Your task to perform on an android device: turn on the 24-hour format for clock Image 0: 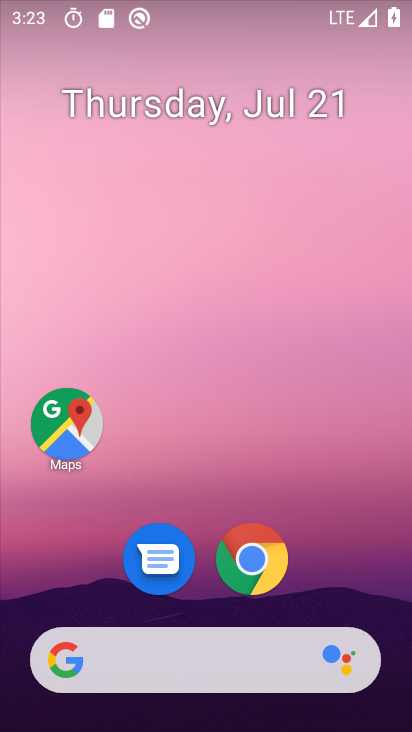
Step 0: drag from (370, 565) to (372, 115)
Your task to perform on an android device: turn on the 24-hour format for clock Image 1: 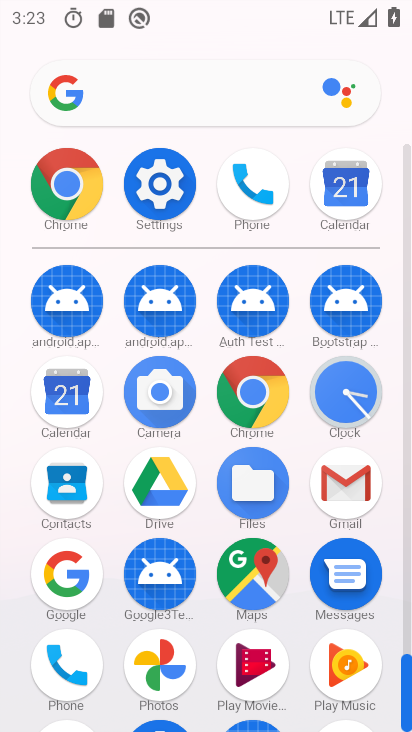
Step 1: click (358, 385)
Your task to perform on an android device: turn on the 24-hour format for clock Image 2: 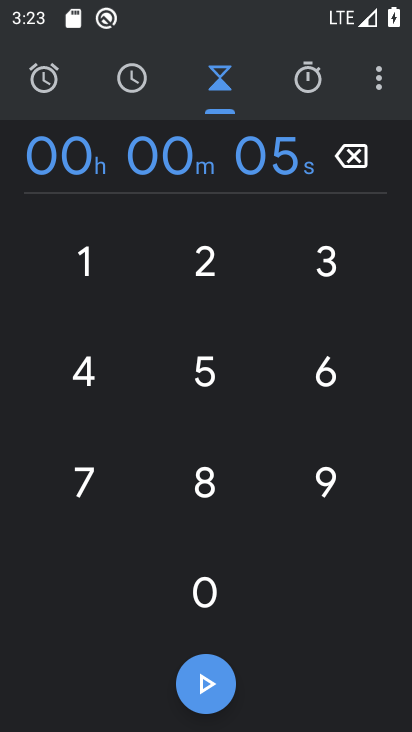
Step 2: click (380, 81)
Your task to perform on an android device: turn on the 24-hour format for clock Image 3: 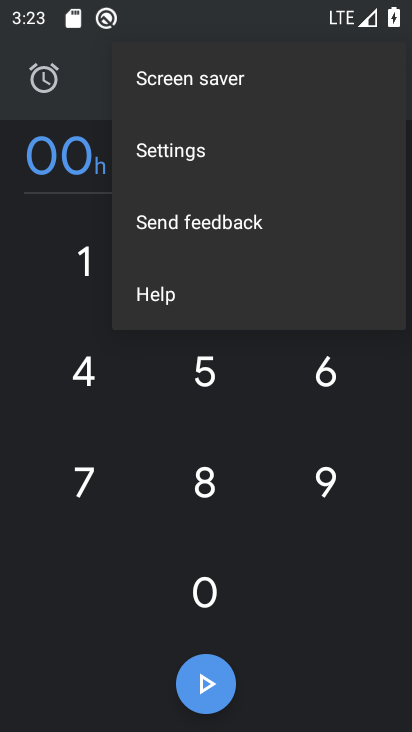
Step 3: click (195, 154)
Your task to perform on an android device: turn on the 24-hour format for clock Image 4: 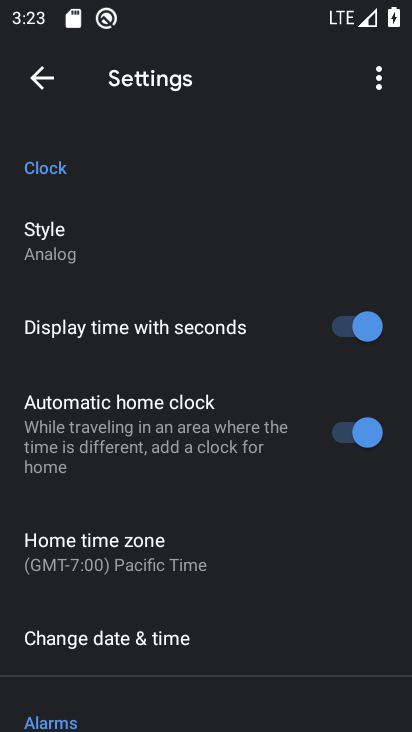
Step 4: drag from (283, 448) to (287, 404)
Your task to perform on an android device: turn on the 24-hour format for clock Image 5: 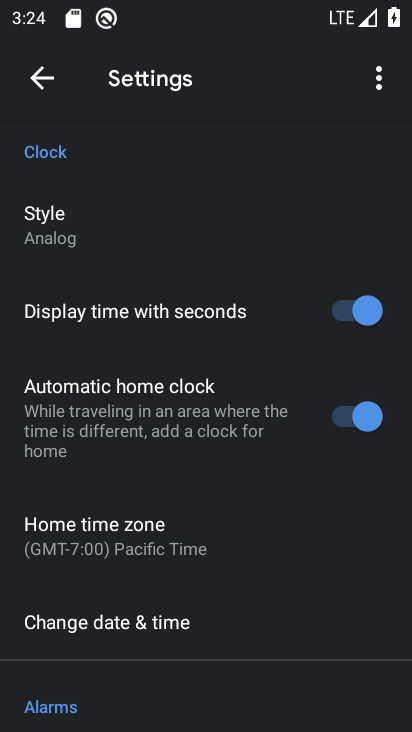
Step 5: drag from (299, 555) to (301, 423)
Your task to perform on an android device: turn on the 24-hour format for clock Image 6: 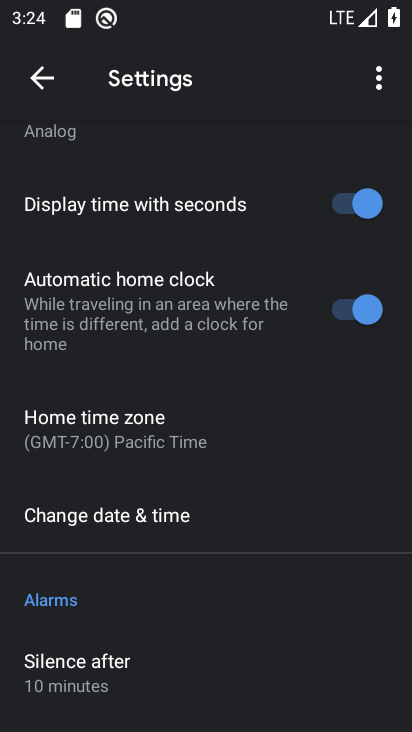
Step 6: drag from (302, 543) to (297, 437)
Your task to perform on an android device: turn on the 24-hour format for clock Image 7: 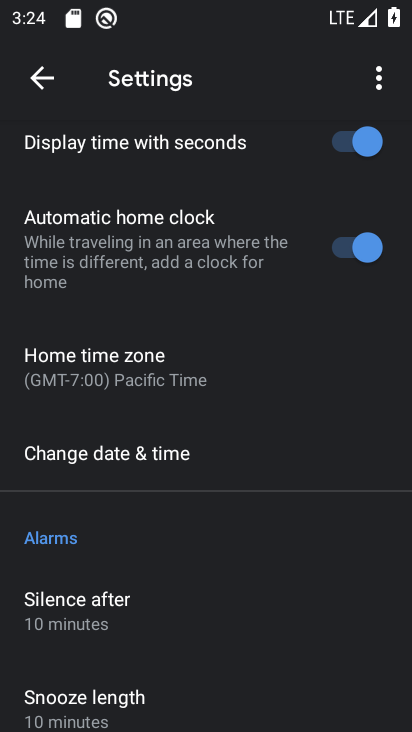
Step 7: drag from (299, 530) to (299, 405)
Your task to perform on an android device: turn on the 24-hour format for clock Image 8: 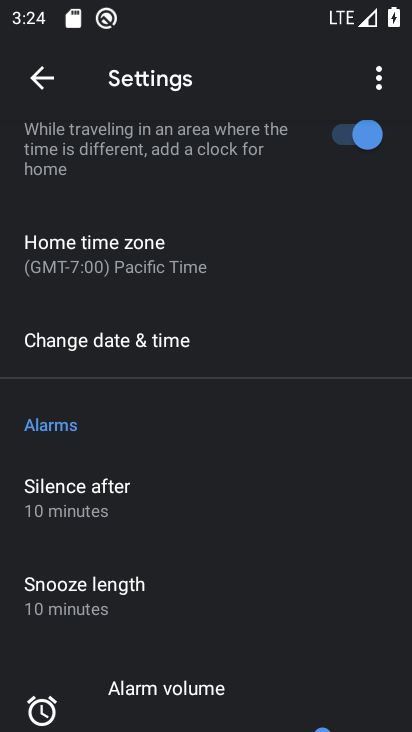
Step 8: click (299, 362)
Your task to perform on an android device: turn on the 24-hour format for clock Image 9: 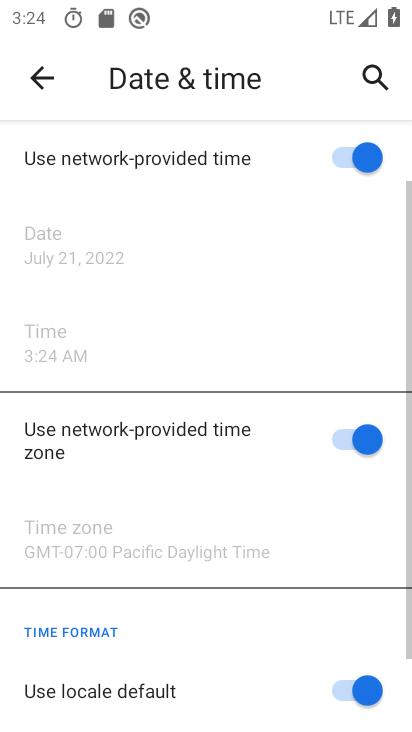
Step 9: drag from (294, 486) to (294, 363)
Your task to perform on an android device: turn on the 24-hour format for clock Image 10: 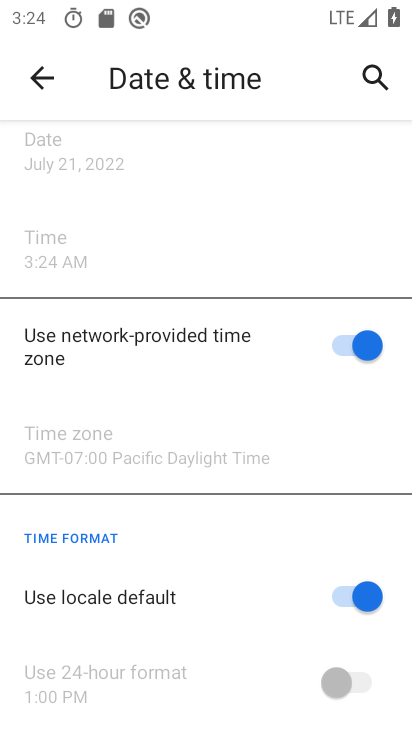
Step 10: drag from (265, 530) to (267, 439)
Your task to perform on an android device: turn on the 24-hour format for clock Image 11: 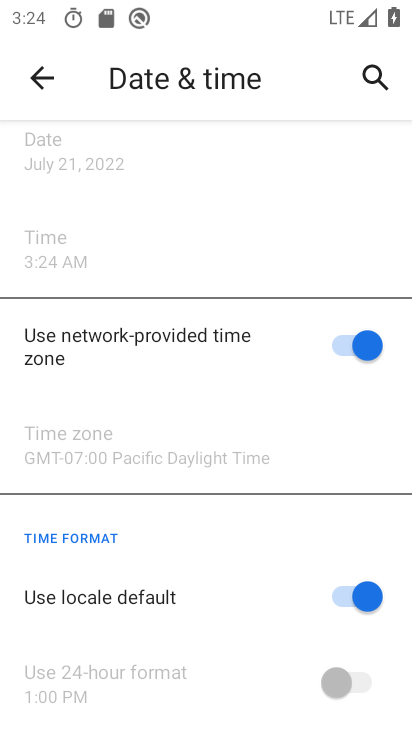
Step 11: click (335, 608)
Your task to perform on an android device: turn on the 24-hour format for clock Image 12: 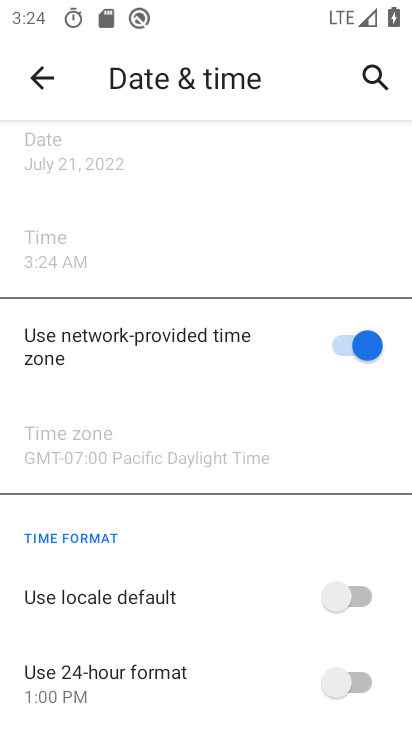
Step 12: click (337, 687)
Your task to perform on an android device: turn on the 24-hour format for clock Image 13: 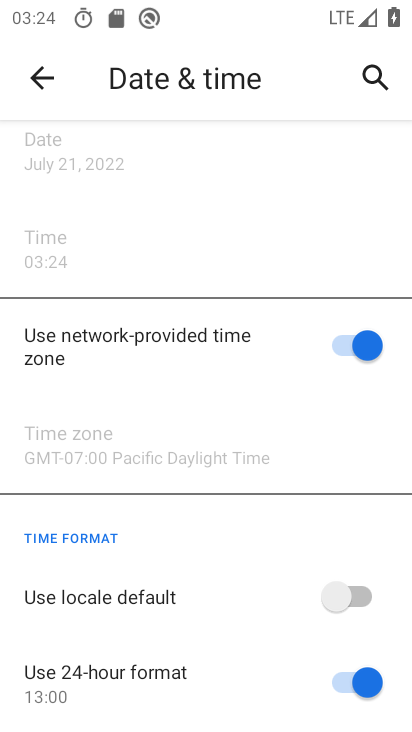
Step 13: task complete